Your task to perform on an android device: empty trash in google photos Image 0: 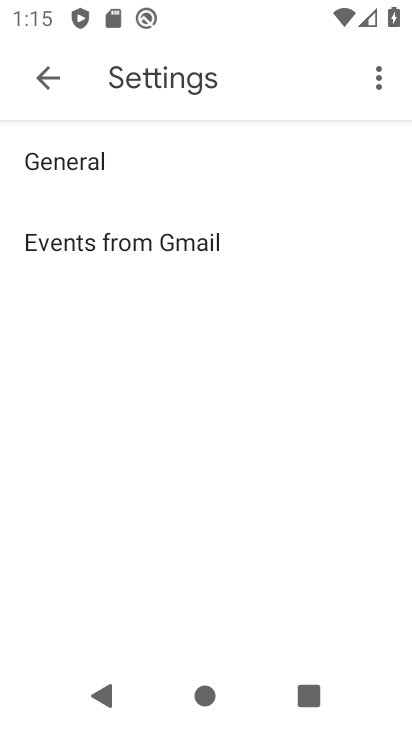
Step 0: press home button
Your task to perform on an android device: empty trash in google photos Image 1: 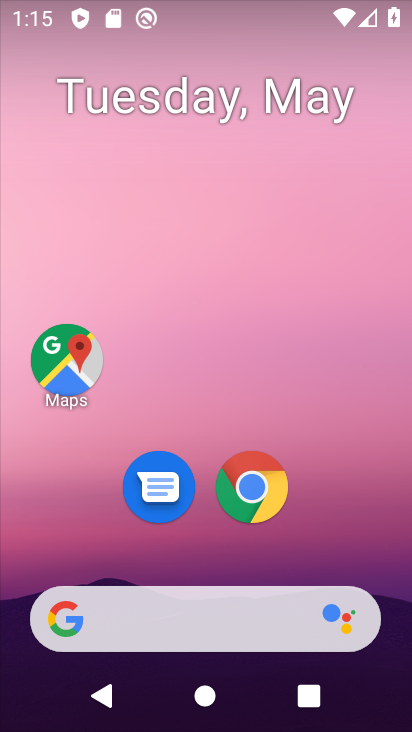
Step 1: drag from (195, 336) to (208, 51)
Your task to perform on an android device: empty trash in google photos Image 2: 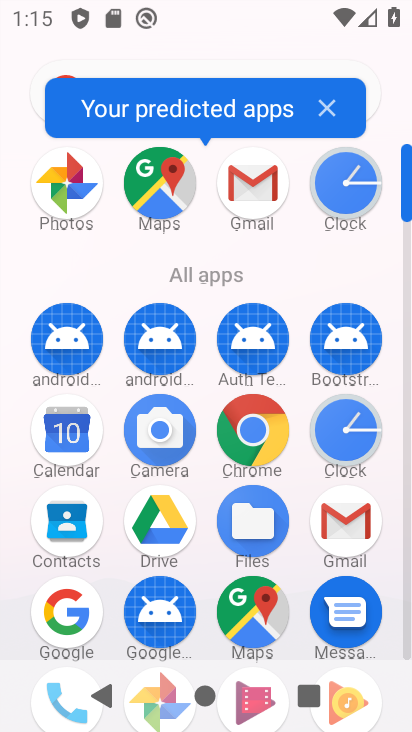
Step 2: click (342, 528)
Your task to perform on an android device: empty trash in google photos Image 3: 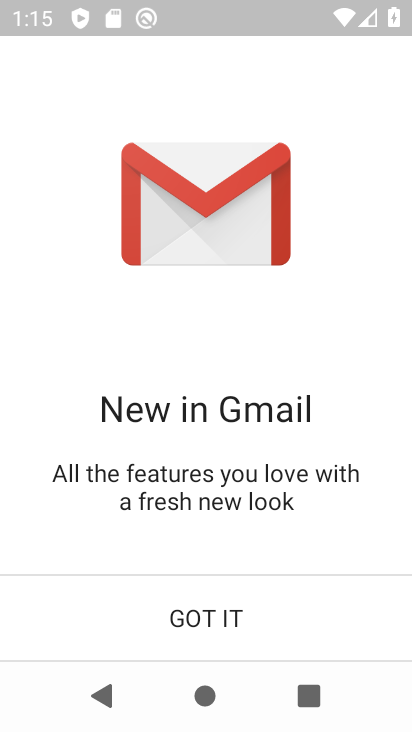
Step 3: click (200, 612)
Your task to perform on an android device: empty trash in google photos Image 4: 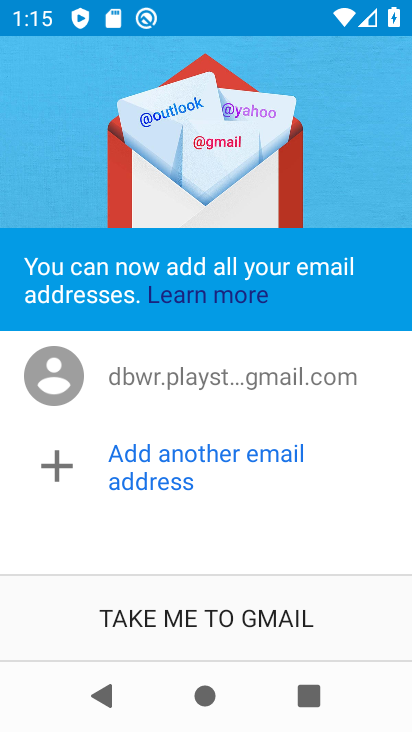
Step 4: click (200, 612)
Your task to perform on an android device: empty trash in google photos Image 5: 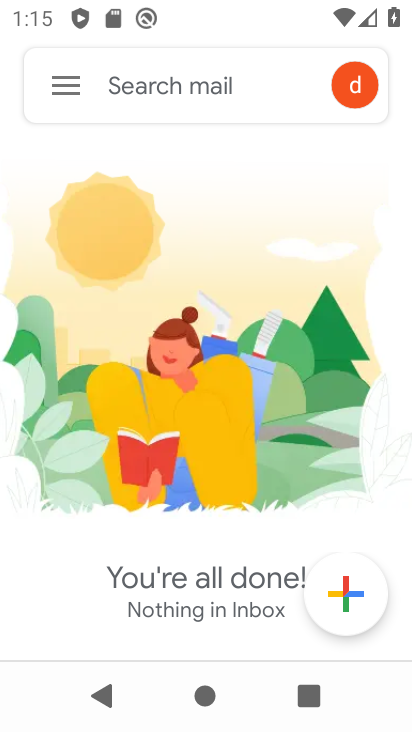
Step 5: click (50, 81)
Your task to perform on an android device: empty trash in google photos Image 6: 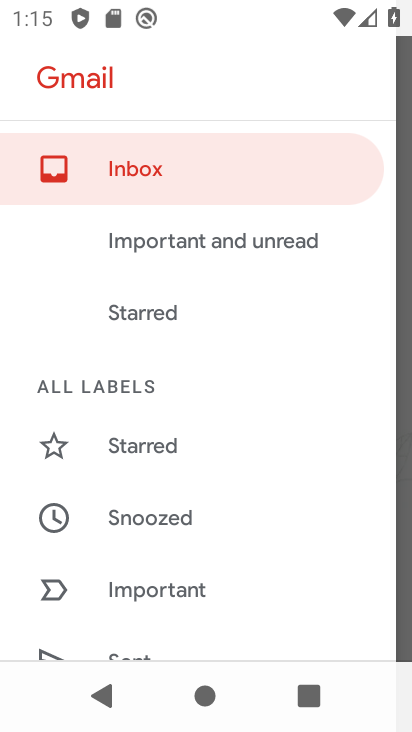
Step 6: drag from (199, 601) to (261, 7)
Your task to perform on an android device: empty trash in google photos Image 7: 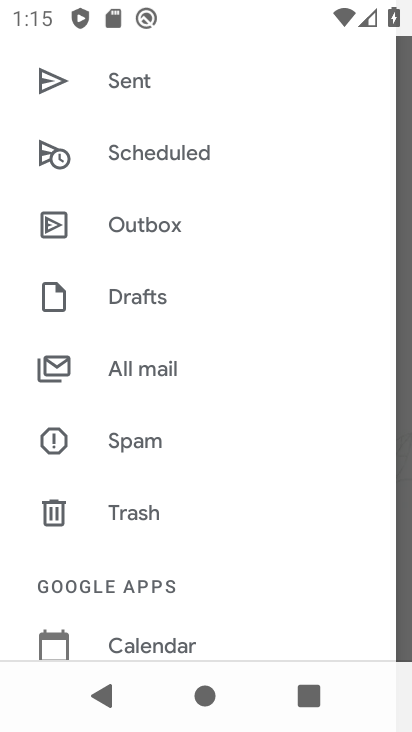
Step 7: click (166, 516)
Your task to perform on an android device: empty trash in google photos Image 8: 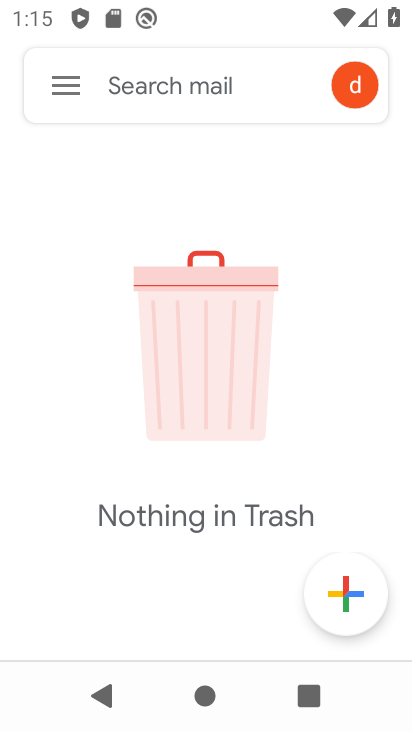
Step 8: task complete